Your task to perform on an android device: Go to Amazon Image 0: 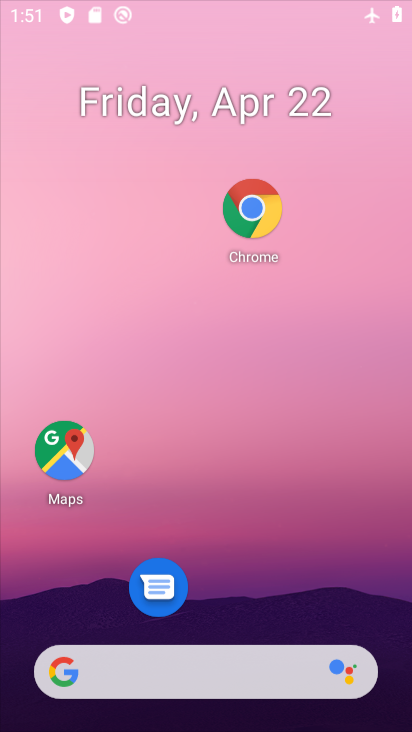
Step 0: click (191, 207)
Your task to perform on an android device: Go to Amazon Image 1: 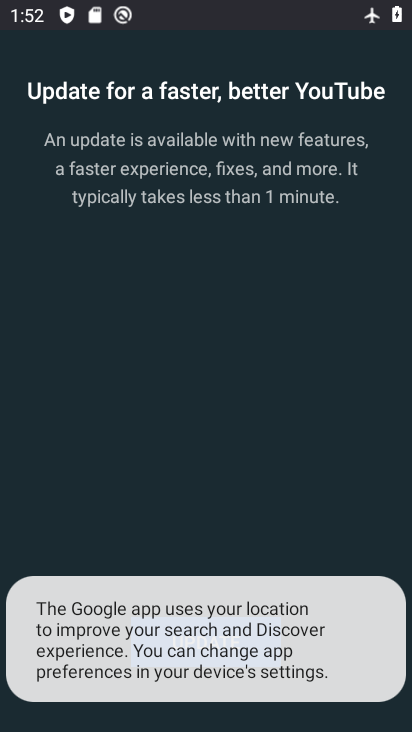
Step 1: drag from (183, 615) to (236, 154)
Your task to perform on an android device: Go to Amazon Image 2: 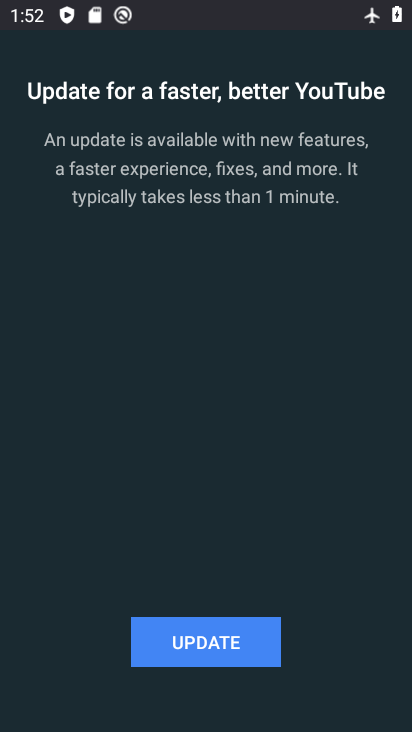
Step 2: press home button
Your task to perform on an android device: Go to Amazon Image 3: 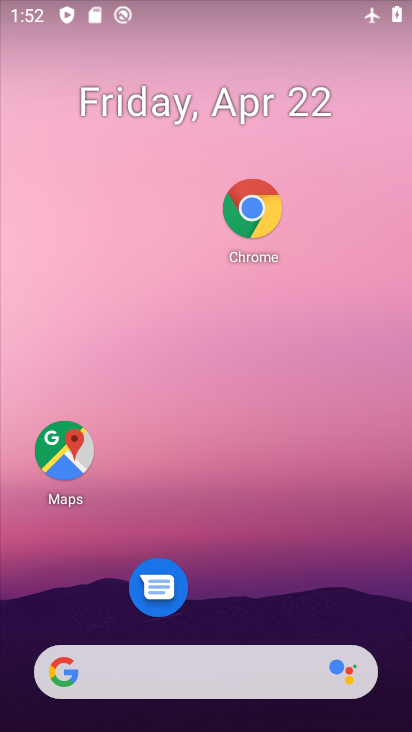
Step 3: drag from (201, 603) to (256, 207)
Your task to perform on an android device: Go to Amazon Image 4: 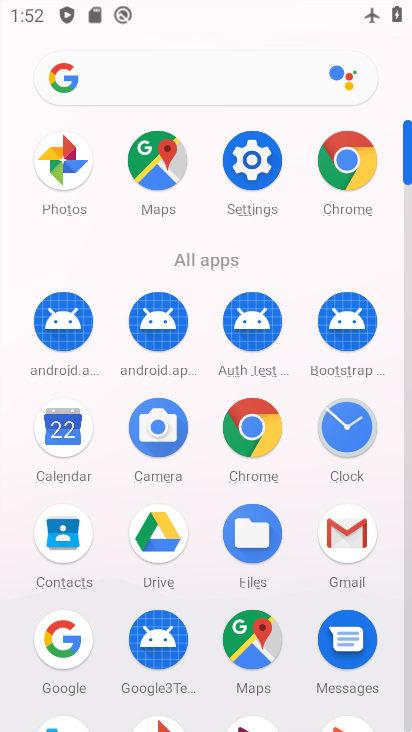
Step 4: drag from (221, 592) to (209, 176)
Your task to perform on an android device: Go to Amazon Image 5: 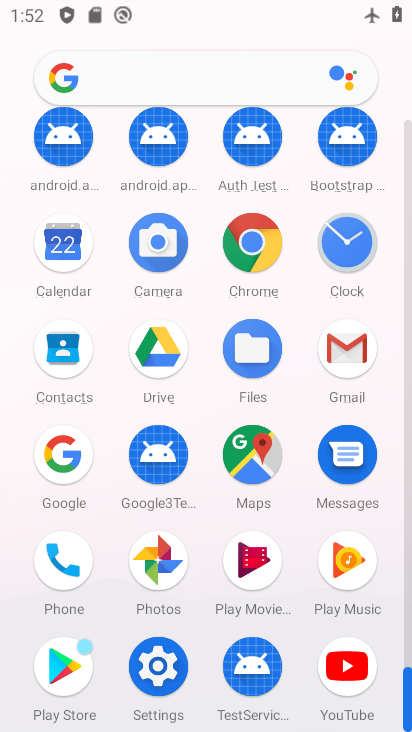
Step 5: click (261, 249)
Your task to perform on an android device: Go to Amazon Image 6: 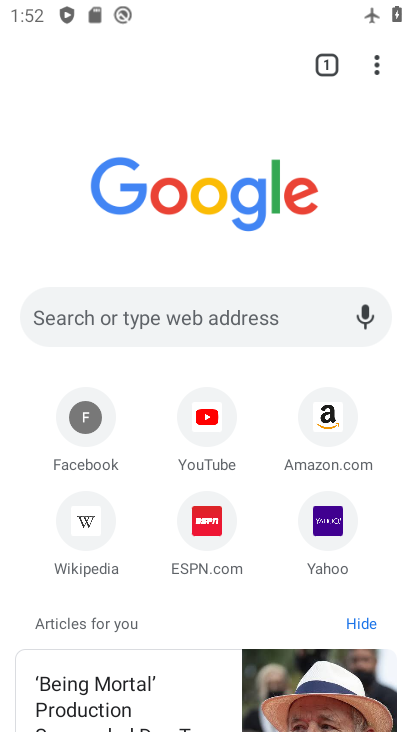
Step 6: click (347, 410)
Your task to perform on an android device: Go to Amazon Image 7: 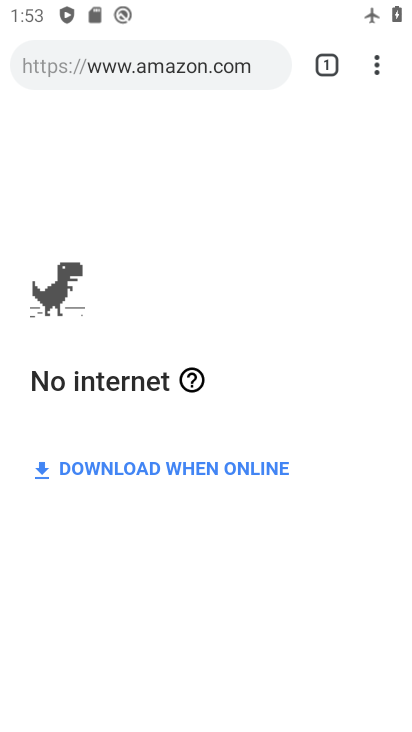
Step 7: task complete